Your task to perform on an android device: Show me the alarms in the clock app Image 0: 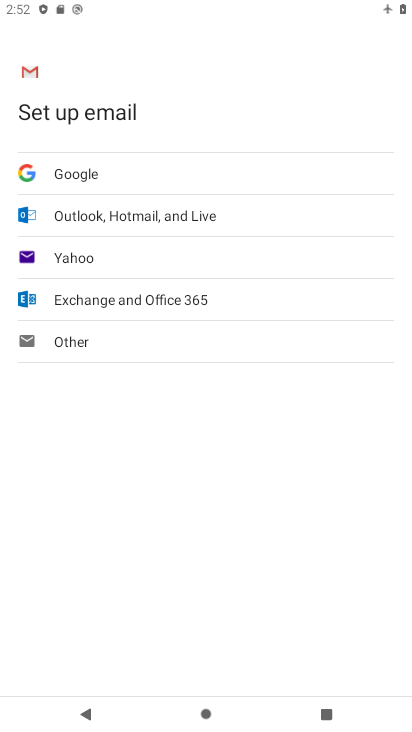
Step 0: press home button
Your task to perform on an android device: Show me the alarms in the clock app Image 1: 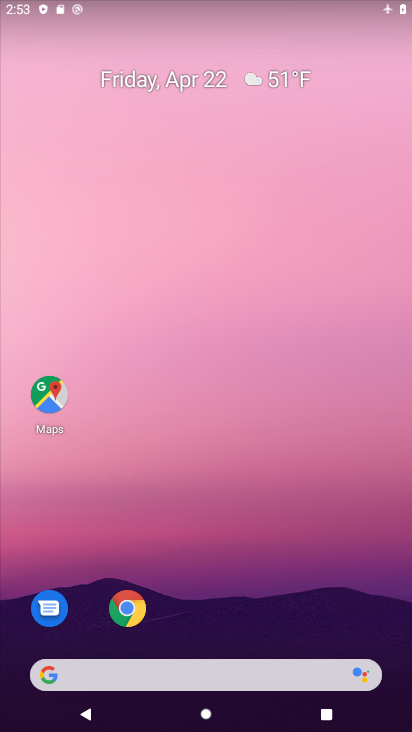
Step 1: drag from (241, 608) to (199, 28)
Your task to perform on an android device: Show me the alarms in the clock app Image 2: 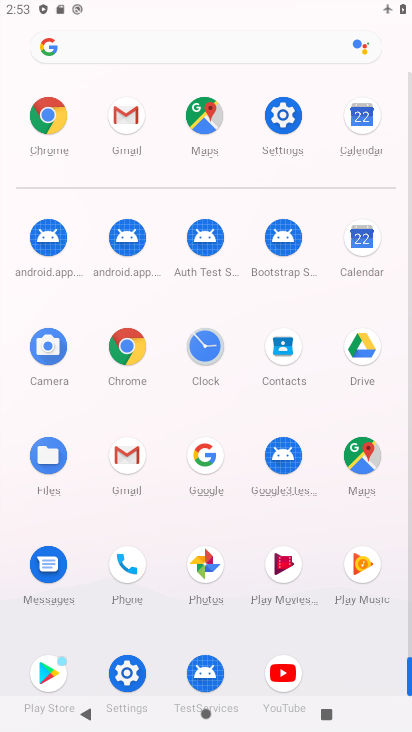
Step 2: click (198, 346)
Your task to perform on an android device: Show me the alarms in the clock app Image 3: 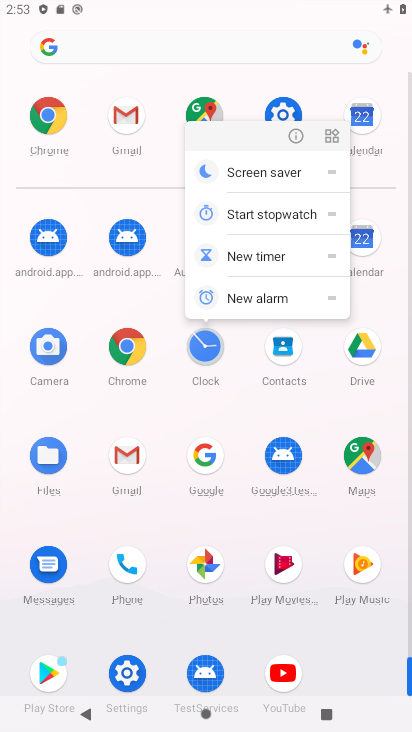
Step 3: click (207, 356)
Your task to perform on an android device: Show me the alarms in the clock app Image 4: 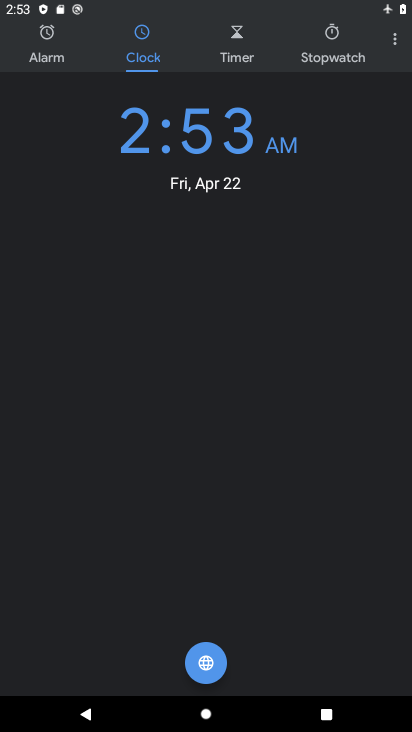
Step 4: click (38, 45)
Your task to perform on an android device: Show me the alarms in the clock app Image 5: 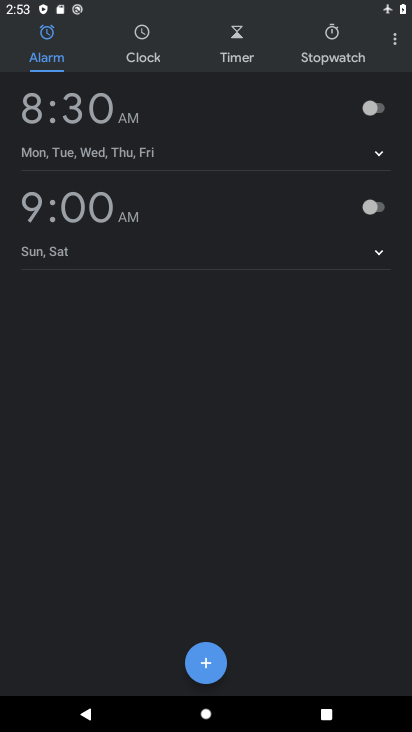
Step 5: task complete